Your task to perform on an android device: open a new tab in the chrome app Image 0: 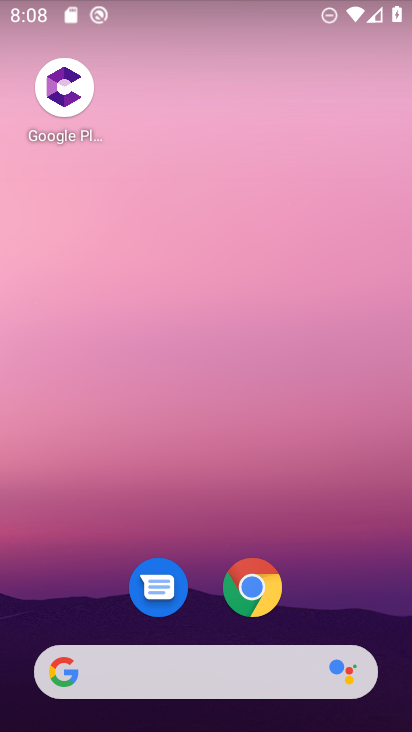
Step 0: click (255, 577)
Your task to perform on an android device: open a new tab in the chrome app Image 1: 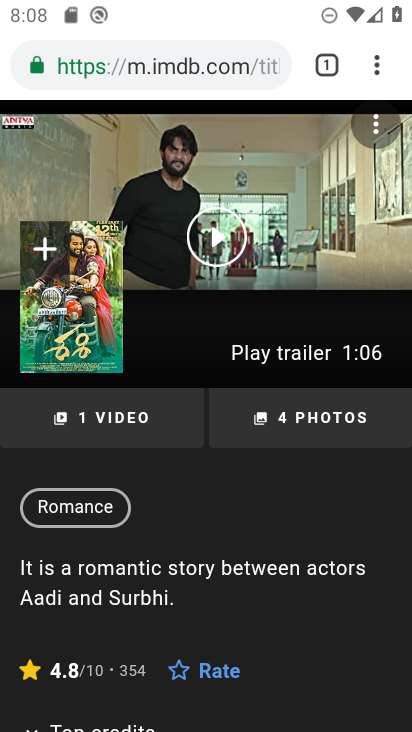
Step 1: click (376, 83)
Your task to perform on an android device: open a new tab in the chrome app Image 2: 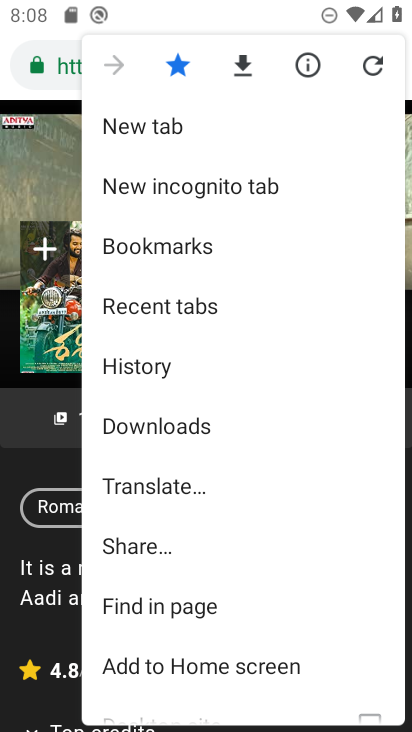
Step 2: click (162, 124)
Your task to perform on an android device: open a new tab in the chrome app Image 3: 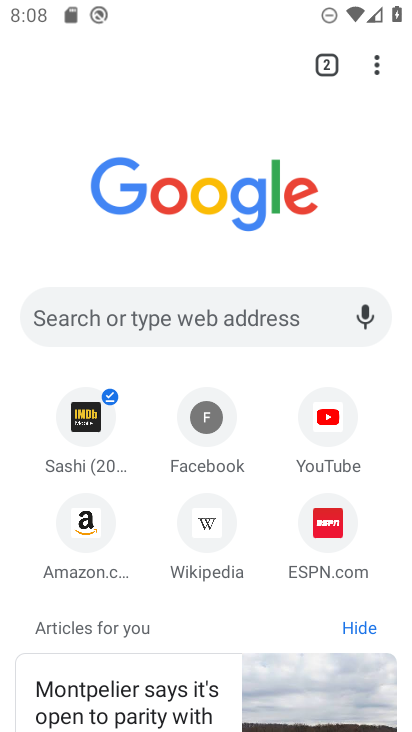
Step 3: task complete